Your task to perform on an android device: Search for vegetarian restaurants on Maps Image 0: 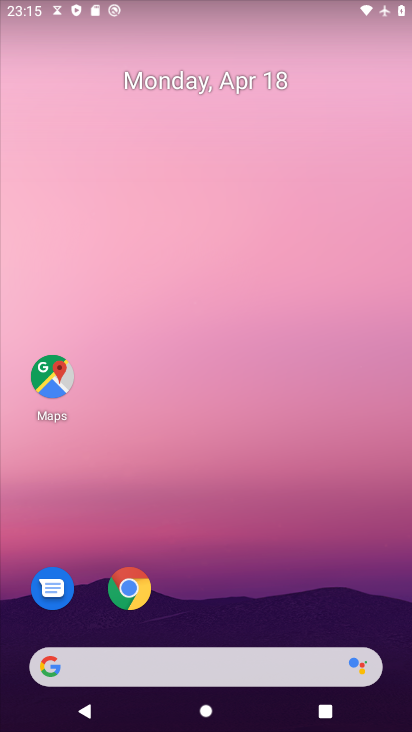
Step 0: drag from (311, 474) to (269, 68)
Your task to perform on an android device: Search for vegetarian restaurants on Maps Image 1: 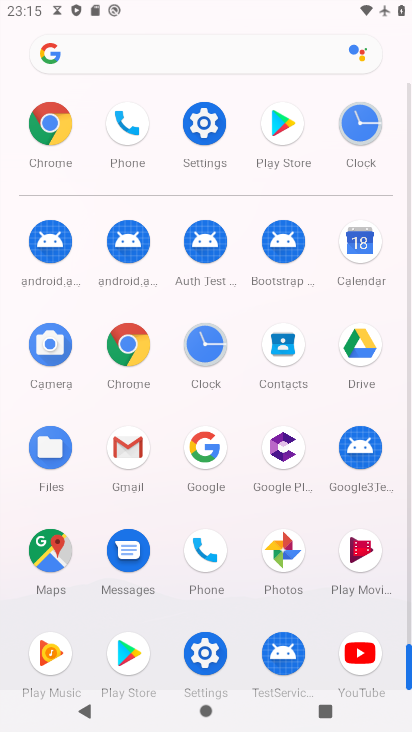
Step 1: drag from (17, 573) to (0, 326)
Your task to perform on an android device: Search for vegetarian restaurants on Maps Image 2: 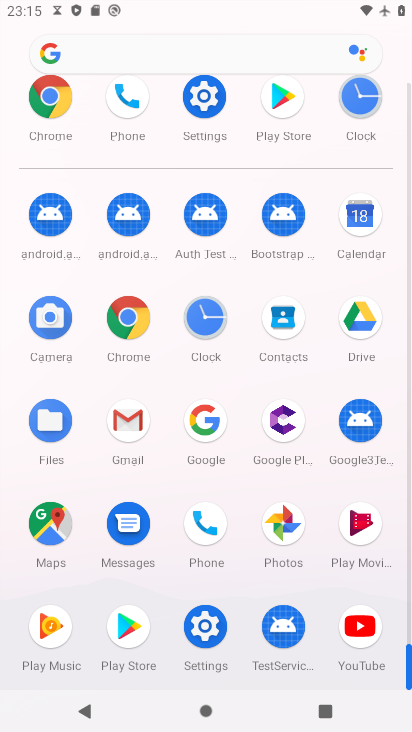
Step 2: click (45, 520)
Your task to perform on an android device: Search for vegetarian restaurants on Maps Image 3: 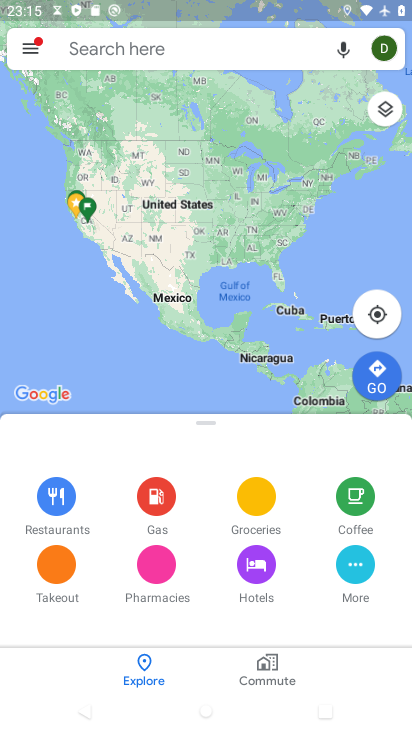
Step 3: click (203, 43)
Your task to perform on an android device: Search for vegetarian restaurants on Maps Image 4: 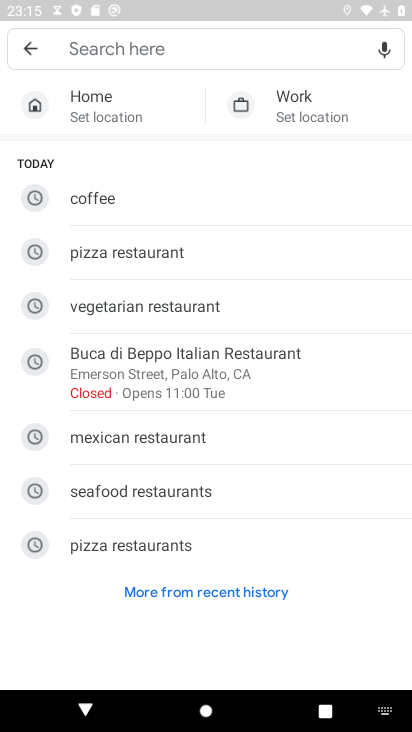
Step 4: type "vegetarian restaurants"
Your task to perform on an android device: Search for vegetarian restaurants on Maps Image 5: 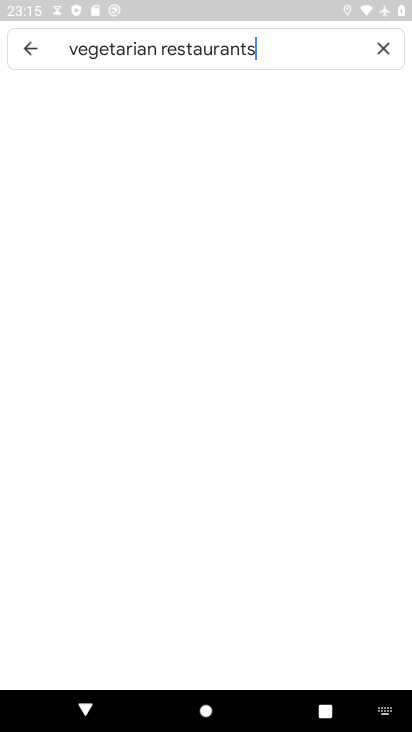
Step 5: type ""
Your task to perform on an android device: Search for vegetarian restaurants on Maps Image 6: 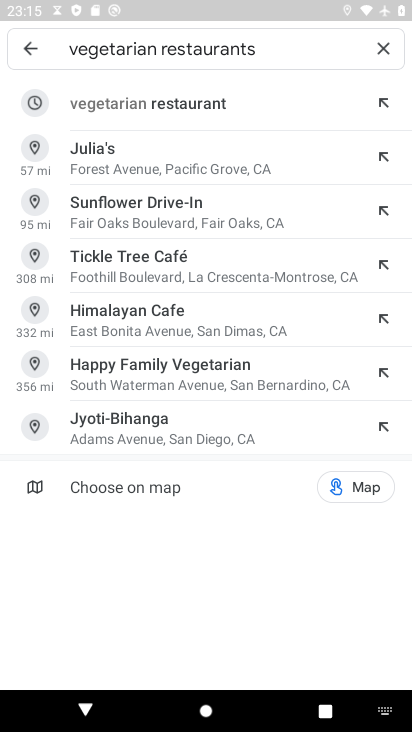
Step 6: click (103, 109)
Your task to perform on an android device: Search for vegetarian restaurants on Maps Image 7: 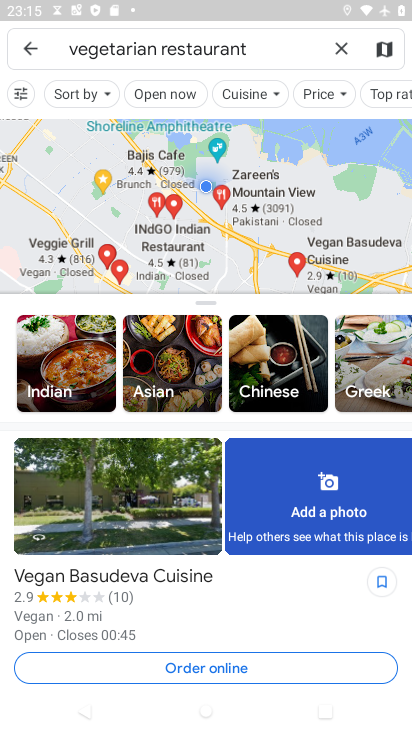
Step 7: task complete